Your task to perform on an android device: Go to Amazon Image 0: 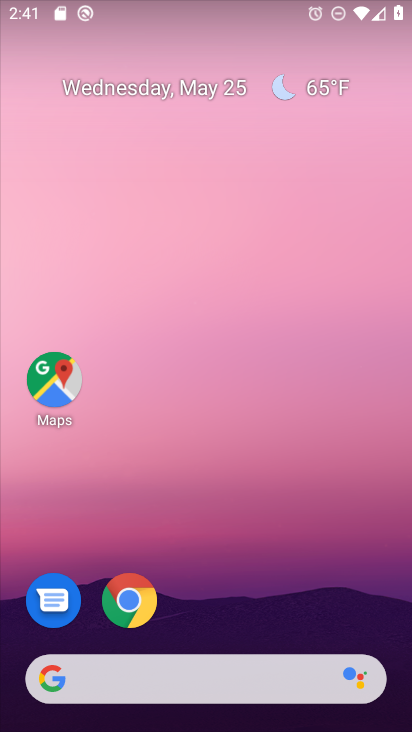
Step 0: drag from (227, 585) to (324, 94)
Your task to perform on an android device: Go to Amazon Image 1: 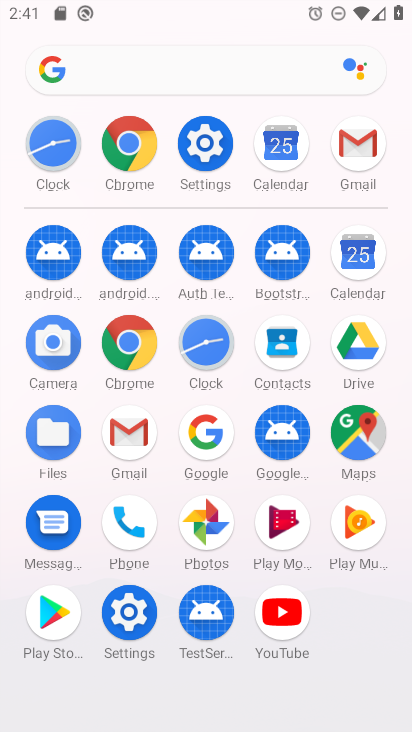
Step 1: click (118, 347)
Your task to perform on an android device: Go to Amazon Image 2: 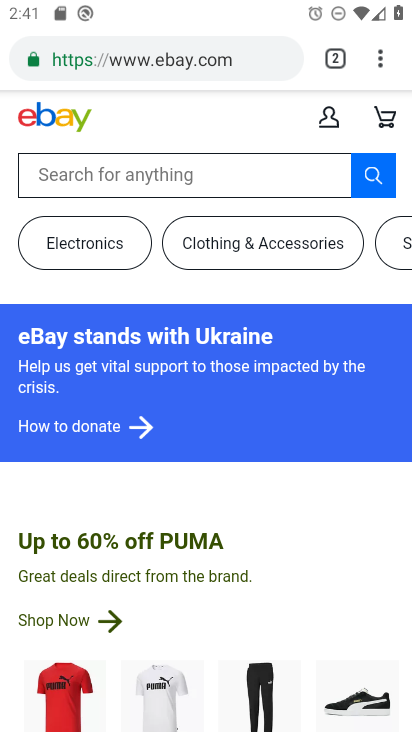
Step 2: click (244, 66)
Your task to perform on an android device: Go to Amazon Image 3: 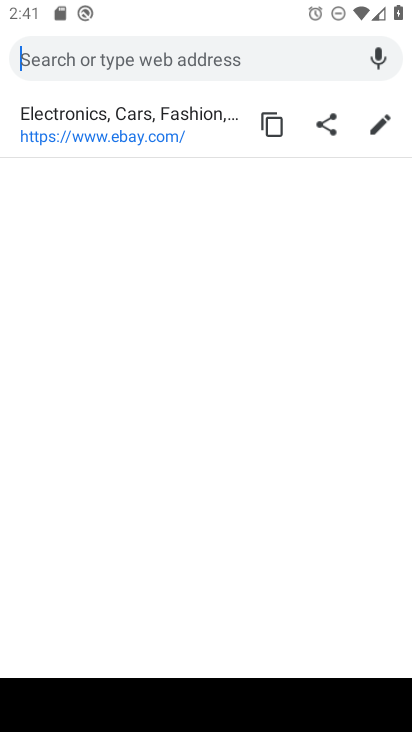
Step 3: type "amazon"
Your task to perform on an android device: Go to Amazon Image 4: 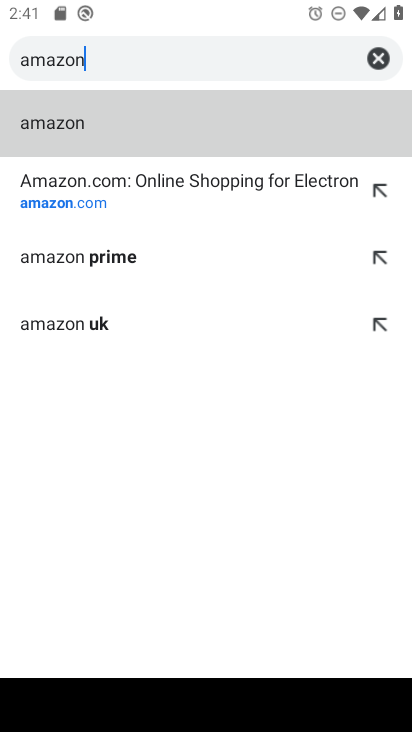
Step 4: click (100, 198)
Your task to perform on an android device: Go to Amazon Image 5: 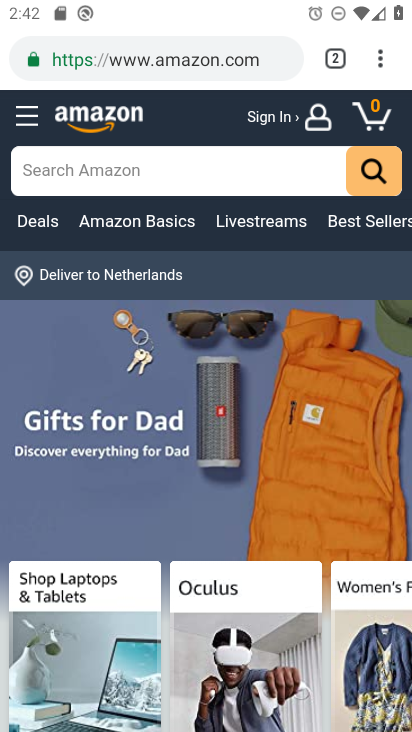
Step 5: task complete